Your task to perform on an android device: Do I have any events this weekend? Image 0: 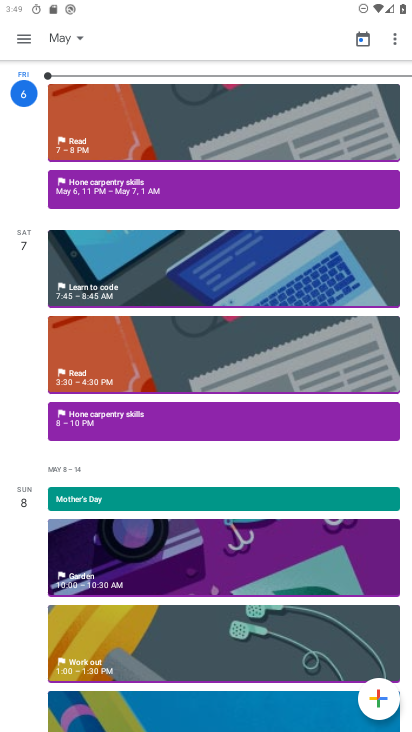
Step 0: click (19, 38)
Your task to perform on an android device: Do I have any events this weekend? Image 1: 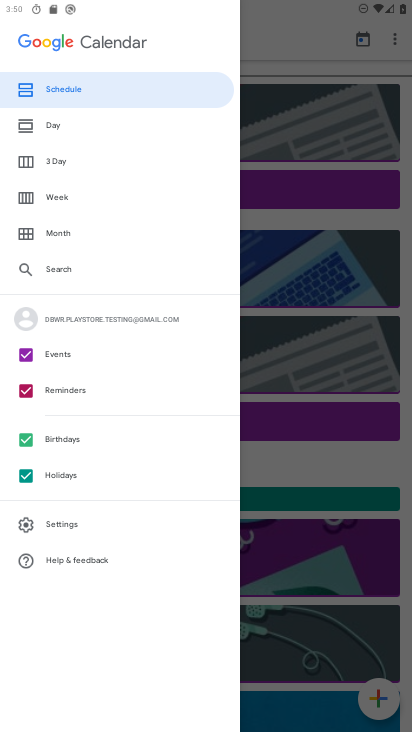
Step 1: click (29, 478)
Your task to perform on an android device: Do I have any events this weekend? Image 2: 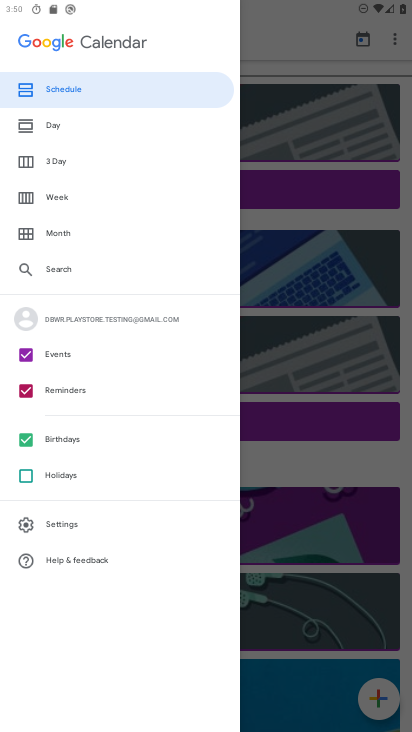
Step 2: click (26, 438)
Your task to perform on an android device: Do I have any events this weekend? Image 3: 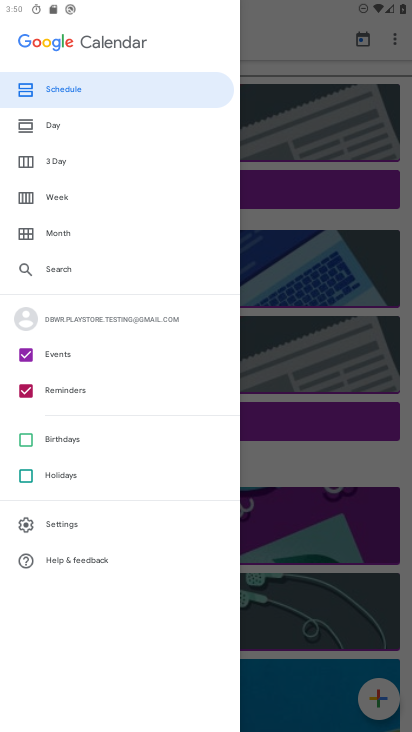
Step 3: click (25, 387)
Your task to perform on an android device: Do I have any events this weekend? Image 4: 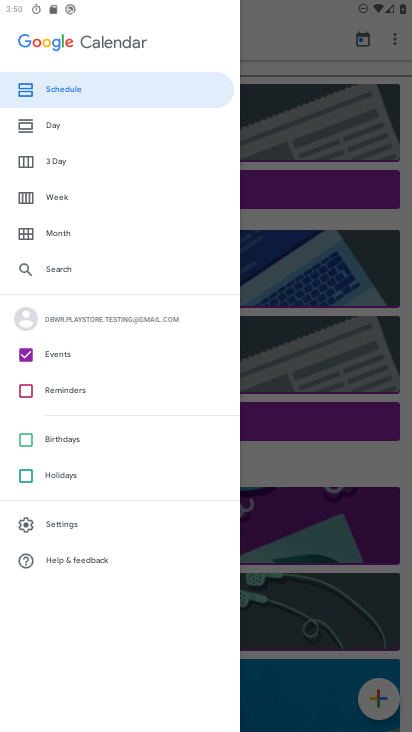
Step 4: click (61, 198)
Your task to perform on an android device: Do I have any events this weekend? Image 5: 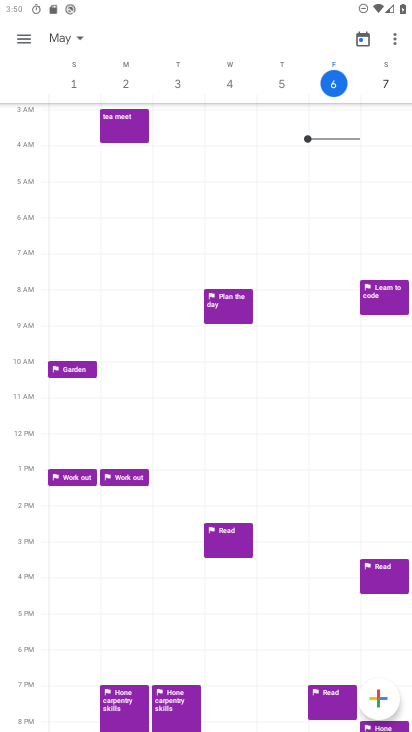
Step 5: task complete